Your task to perform on an android device: What's the weather going to be tomorrow? Image 0: 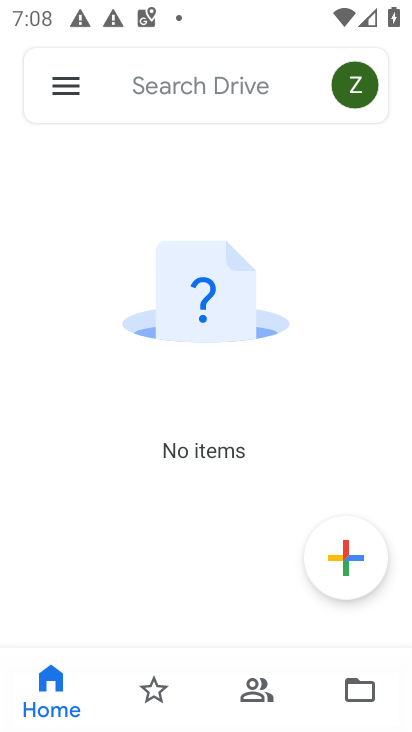
Step 0: press home button
Your task to perform on an android device: What's the weather going to be tomorrow? Image 1: 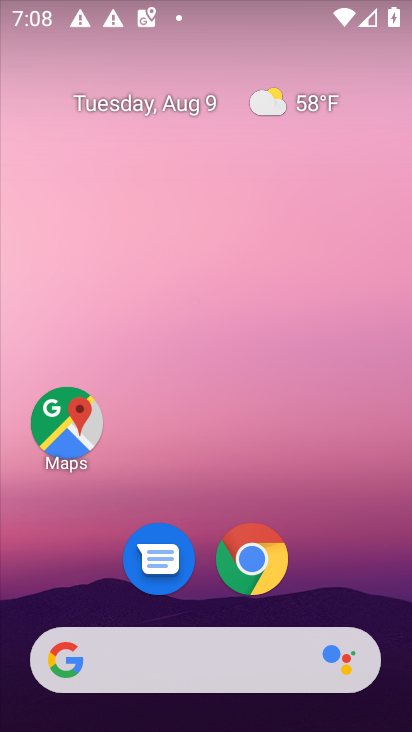
Step 1: click (157, 644)
Your task to perform on an android device: What's the weather going to be tomorrow? Image 2: 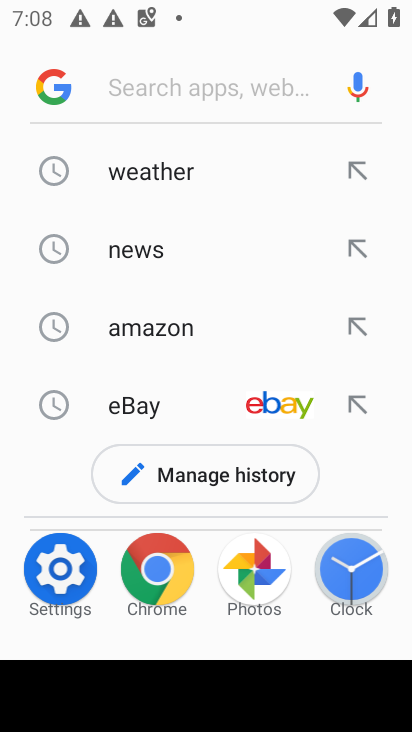
Step 2: click (145, 171)
Your task to perform on an android device: What's the weather going to be tomorrow? Image 3: 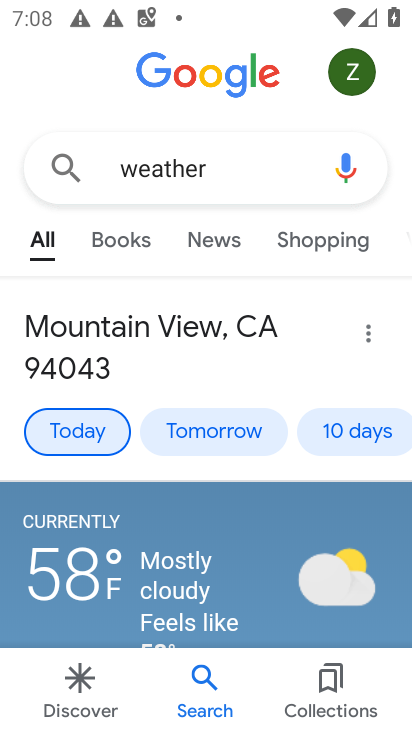
Step 3: click (195, 418)
Your task to perform on an android device: What's the weather going to be tomorrow? Image 4: 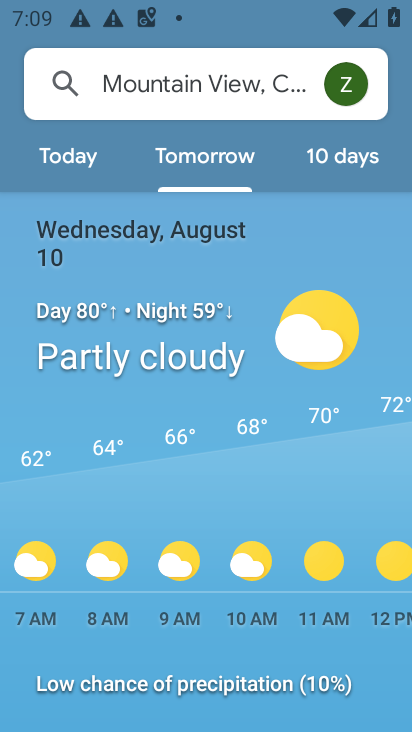
Step 4: task complete